Your task to perform on an android device: clear all cookies in the chrome app Image 0: 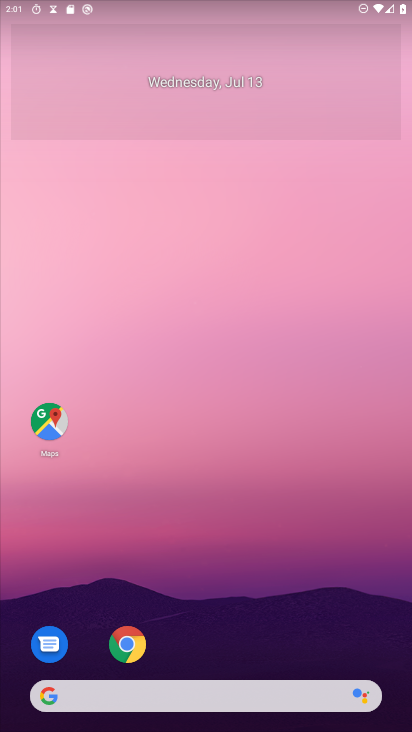
Step 0: press home button
Your task to perform on an android device: clear all cookies in the chrome app Image 1: 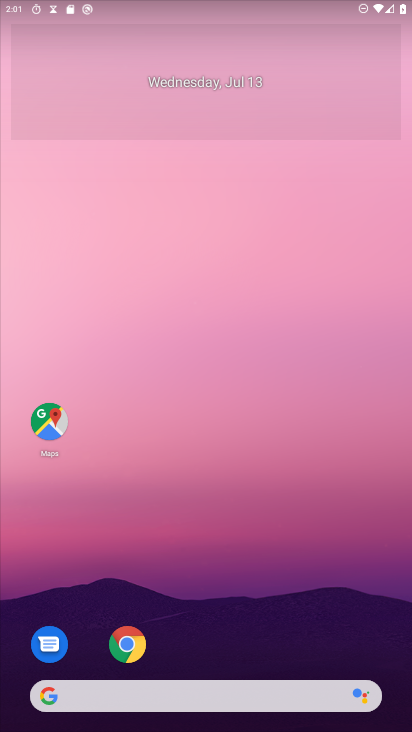
Step 1: drag from (198, 639) to (182, 224)
Your task to perform on an android device: clear all cookies in the chrome app Image 2: 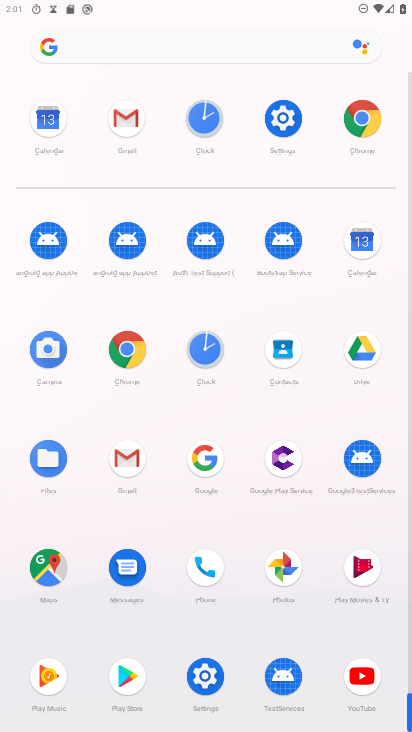
Step 2: click (127, 338)
Your task to perform on an android device: clear all cookies in the chrome app Image 3: 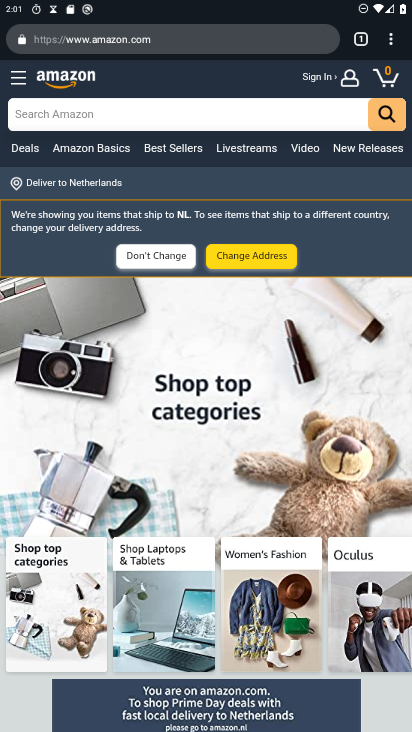
Step 3: drag from (391, 35) to (247, 475)
Your task to perform on an android device: clear all cookies in the chrome app Image 4: 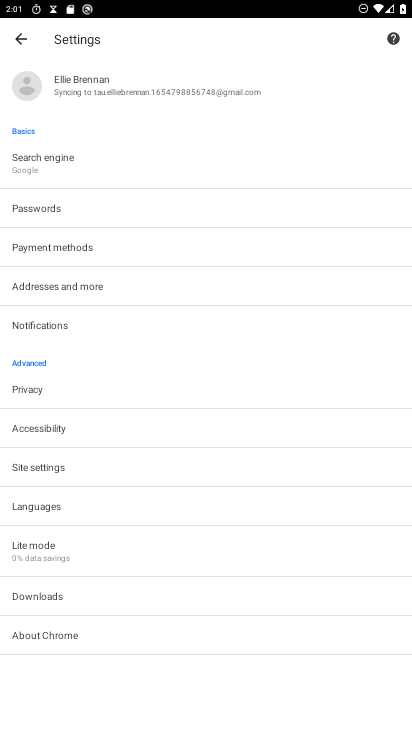
Step 4: click (18, 390)
Your task to perform on an android device: clear all cookies in the chrome app Image 5: 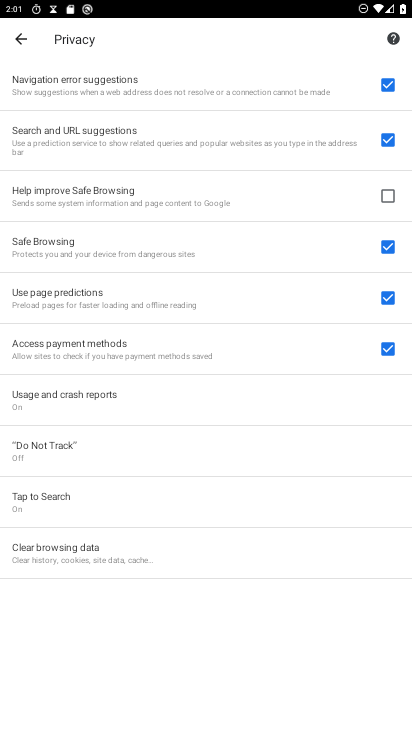
Step 5: click (65, 556)
Your task to perform on an android device: clear all cookies in the chrome app Image 6: 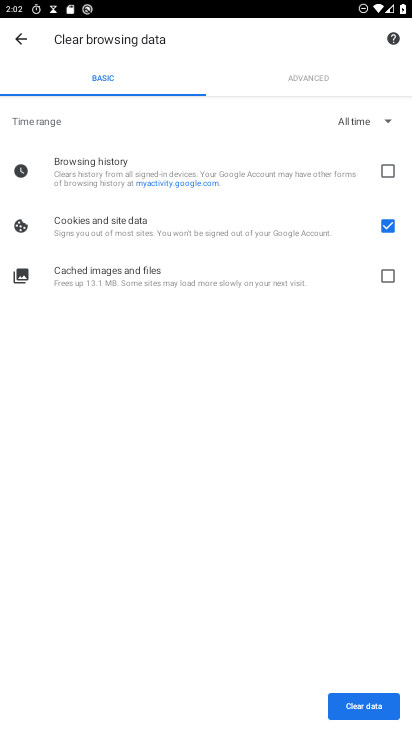
Step 6: click (366, 693)
Your task to perform on an android device: clear all cookies in the chrome app Image 7: 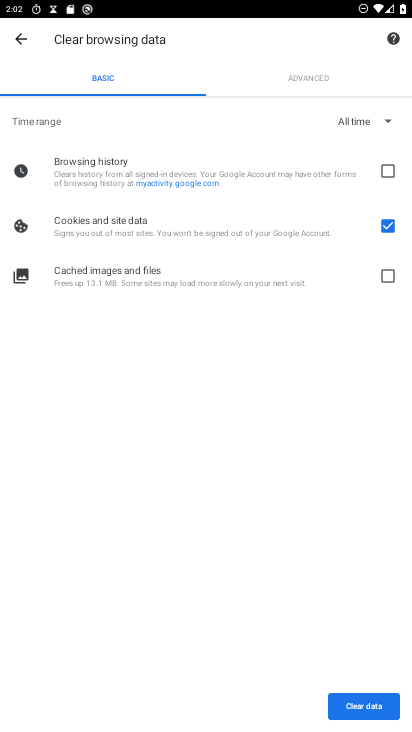
Step 7: click (362, 689)
Your task to perform on an android device: clear all cookies in the chrome app Image 8: 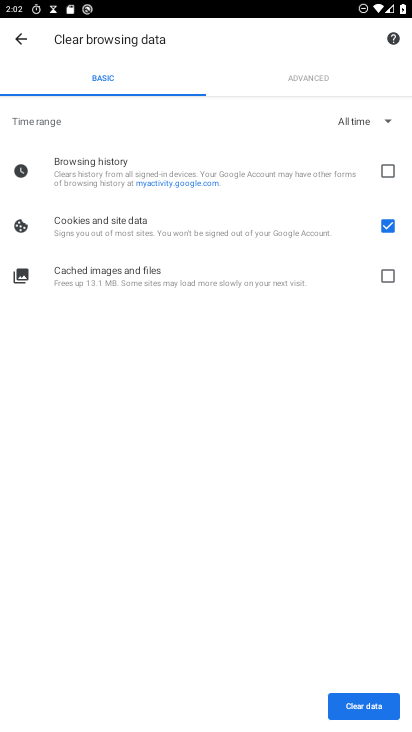
Step 8: click (361, 688)
Your task to perform on an android device: clear all cookies in the chrome app Image 9: 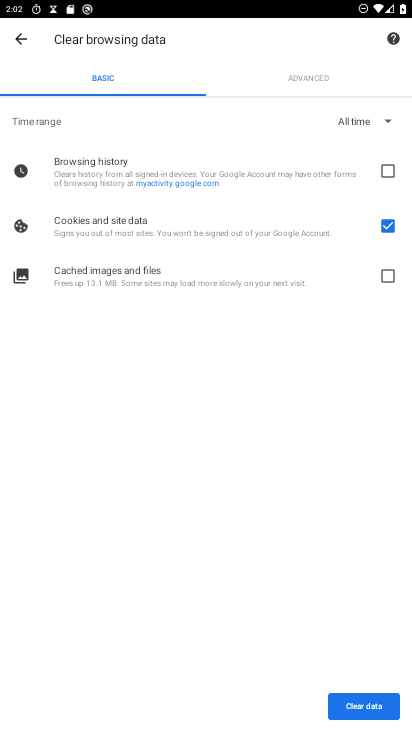
Step 9: click (358, 708)
Your task to perform on an android device: clear all cookies in the chrome app Image 10: 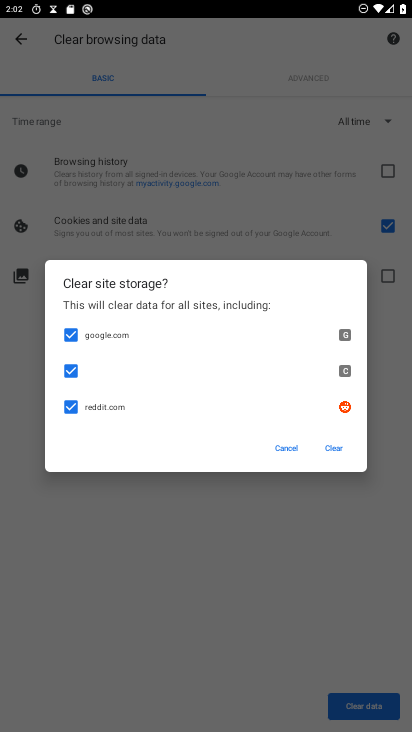
Step 10: click (330, 444)
Your task to perform on an android device: clear all cookies in the chrome app Image 11: 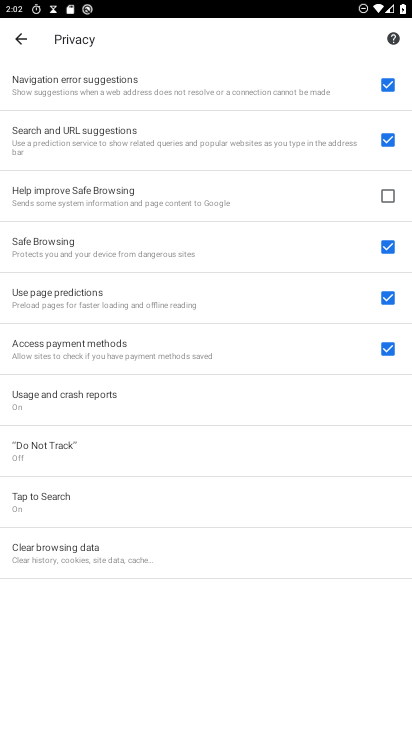
Step 11: task complete